Your task to perform on an android device: see creations saved in the google photos Image 0: 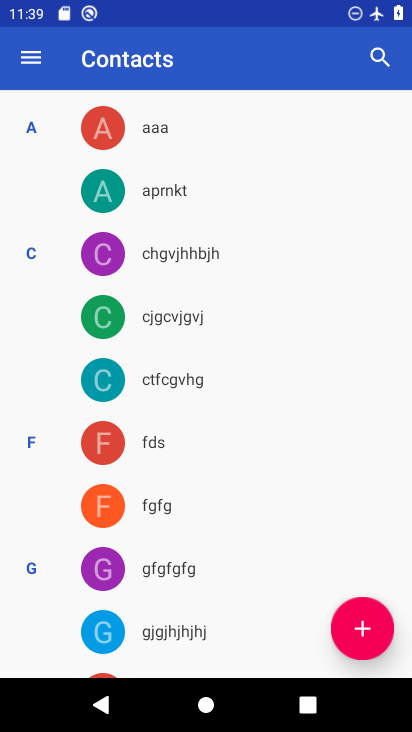
Step 0: press back button
Your task to perform on an android device: see creations saved in the google photos Image 1: 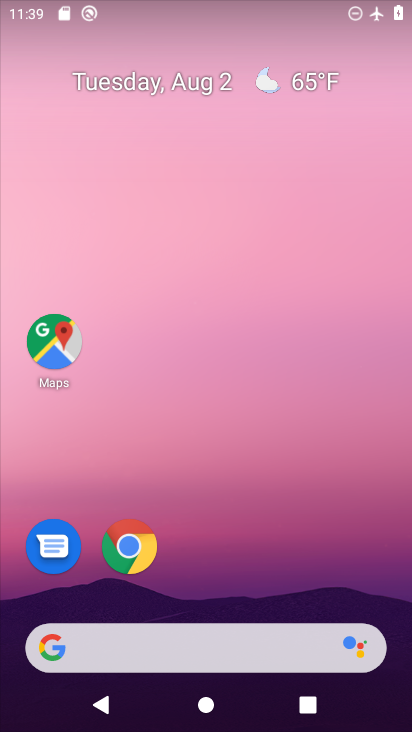
Step 1: drag from (219, 576) to (186, 128)
Your task to perform on an android device: see creations saved in the google photos Image 2: 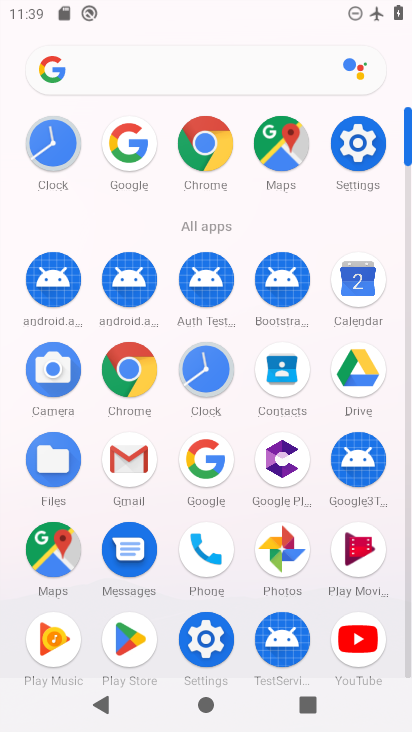
Step 2: click (297, 542)
Your task to perform on an android device: see creations saved in the google photos Image 3: 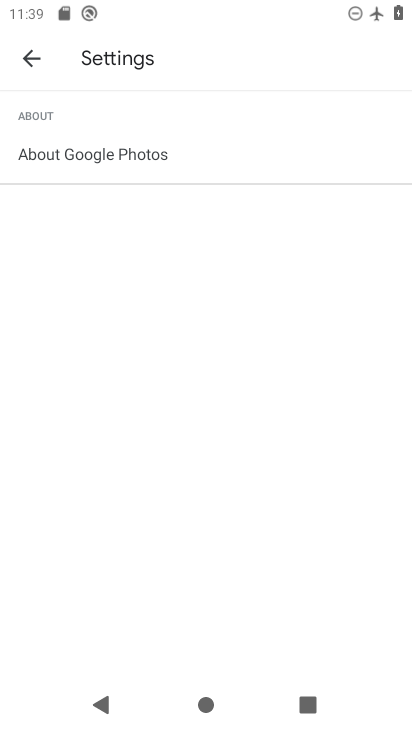
Step 3: click (27, 69)
Your task to perform on an android device: see creations saved in the google photos Image 4: 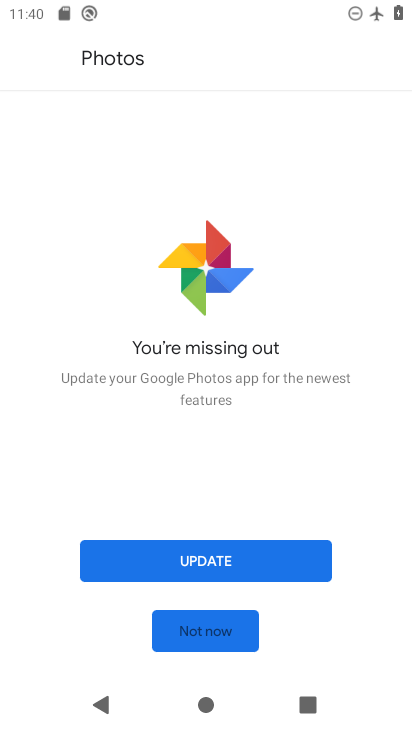
Step 4: click (240, 634)
Your task to perform on an android device: see creations saved in the google photos Image 5: 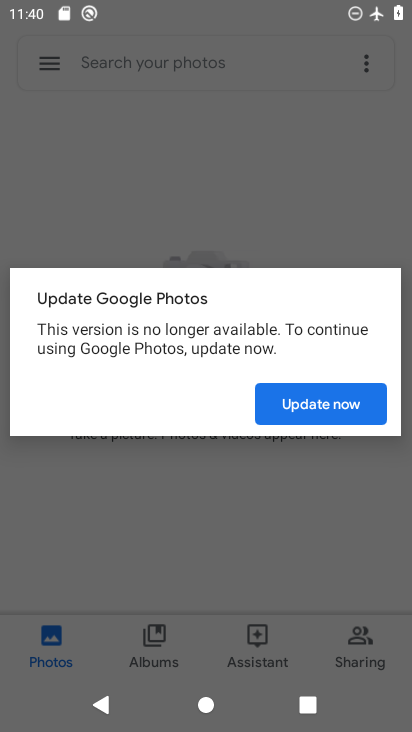
Step 5: click (293, 407)
Your task to perform on an android device: see creations saved in the google photos Image 6: 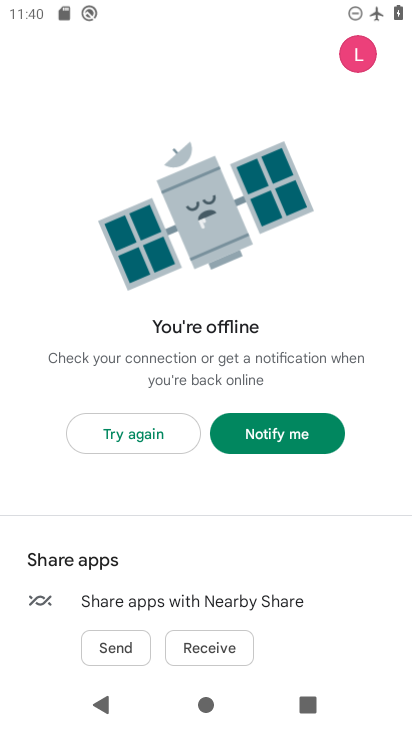
Step 6: press back button
Your task to perform on an android device: see creations saved in the google photos Image 7: 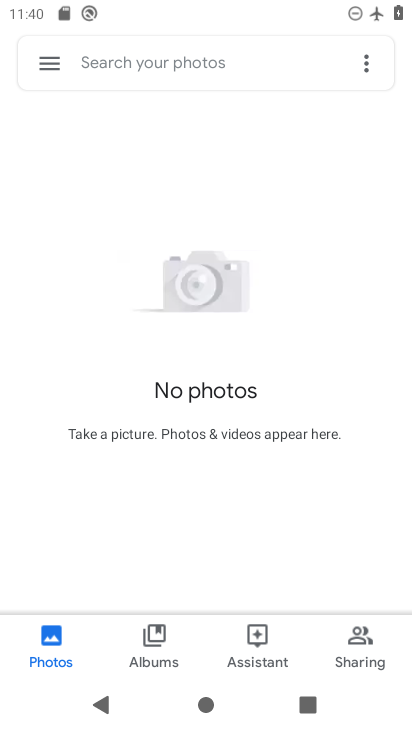
Step 7: click (174, 60)
Your task to perform on an android device: see creations saved in the google photos Image 8: 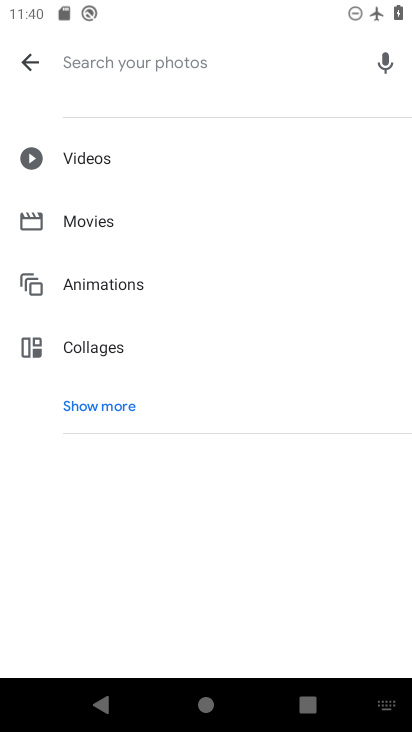
Step 8: click (105, 423)
Your task to perform on an android device: see creations saved in the google photos Image 9: 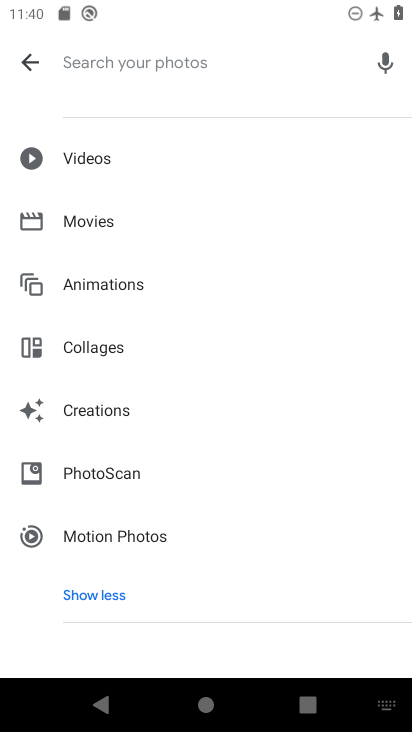
Step 9: click (97, 415)
Your task to perform on an android device: see creations saved in the google photos Image 10: 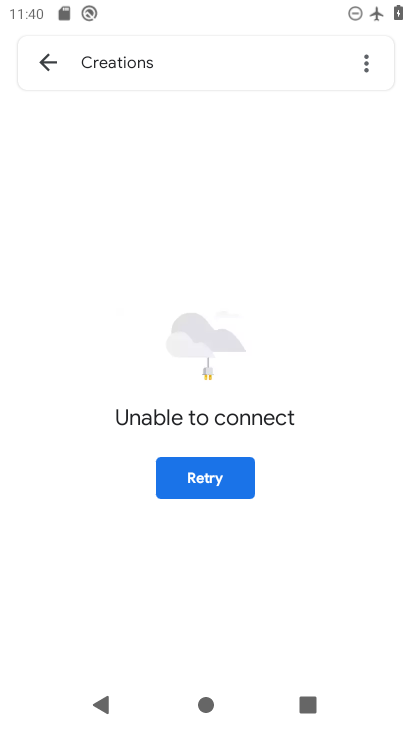
Step 10: task complete